Your task to perform on an android device: turn smart compose on in the gmail app Image 0: 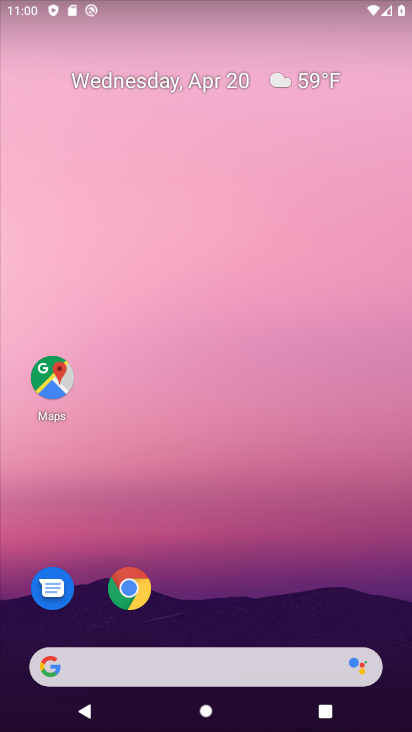
Step 0: drag from (219, 703) to (173, 52)
Your task to perform on an android device: turn smart compose on in the gmail app Image 1: 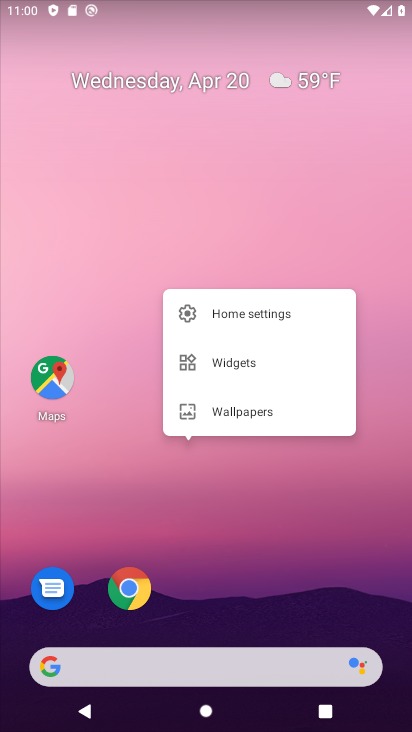
Step 1: click (219, 240)
Your task to perform on an android device: turn smart compose on in the gmail app Image 2: 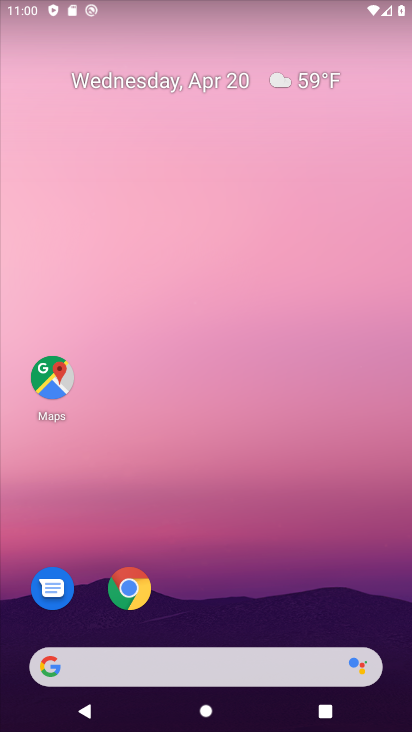
Step 2: drag from (229, 632) to (224, 77)
Your task to perform on an android device: turn smart compose on in the gmail app Image 3: 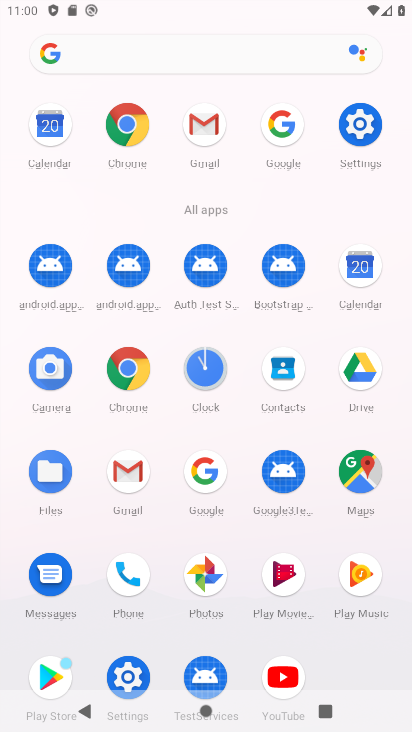
Step 3: click (127, 470)
Your task to perform on an android device: turn smart compose on in the gmail app Image 4: 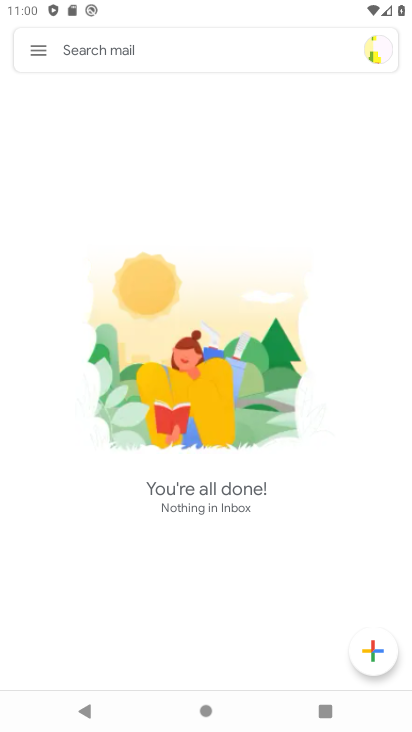
Step 4: click (39, 46)
Your task to perform on an android device: turn smart compose on in the gmail app Image 5: 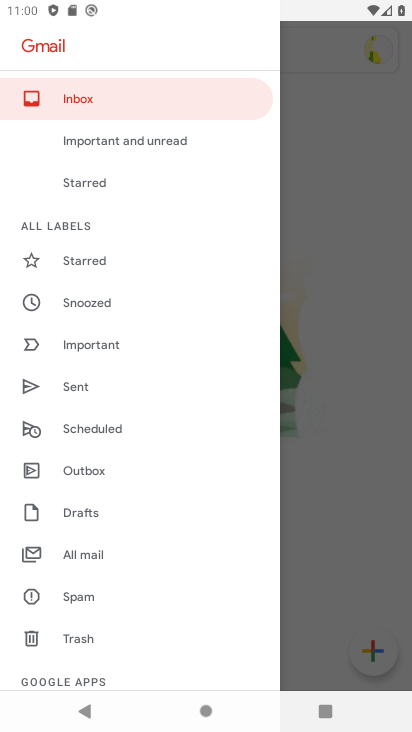
Step 5: drag from (110, 660) to (105, 216)
Your task to perform on an android device: turn smart compose on in the gmail app Image 6: 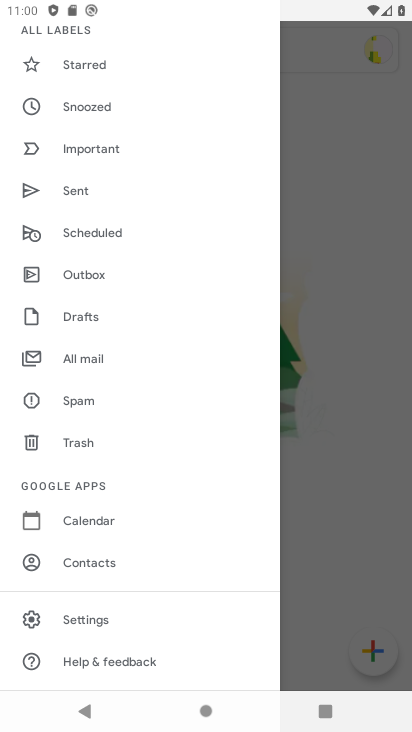
Step 6: click (93, 616)
Your task to perform on an android device: turn smart compose on in the gmail app Image 7: 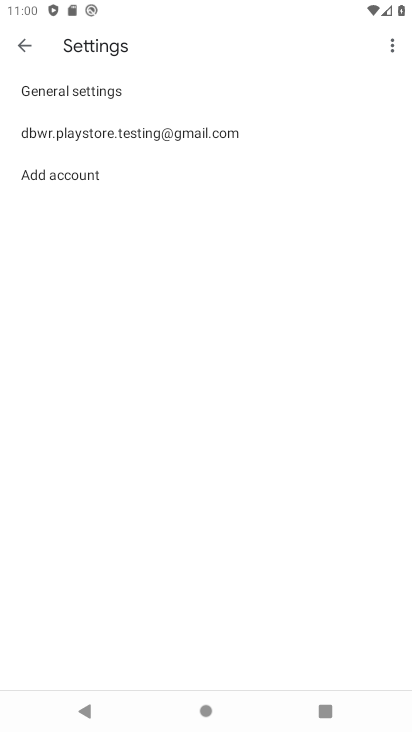
Step 7: click (155, 133)
Your task to perform on an android device: turn smart compose on in the gmail app Image 8: 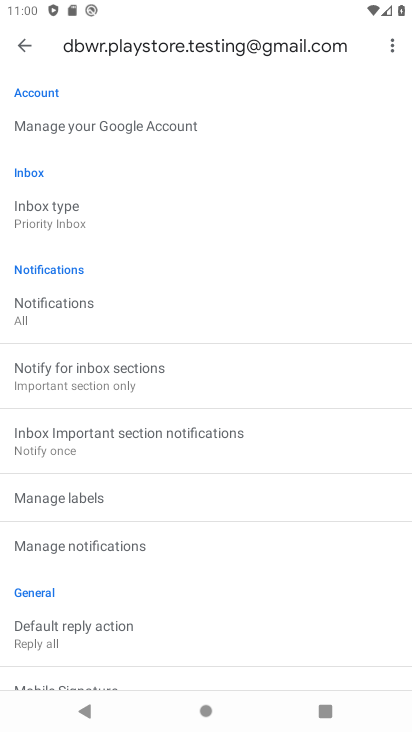
Step 8: task complete